Your task to perform on an android device: turn off location history Image 0: 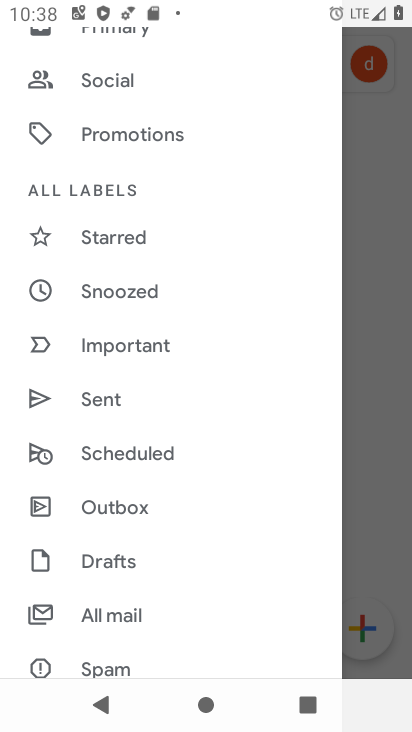
Step 0: press home button
Your task to perform on an android device: turn off location history Image 1: 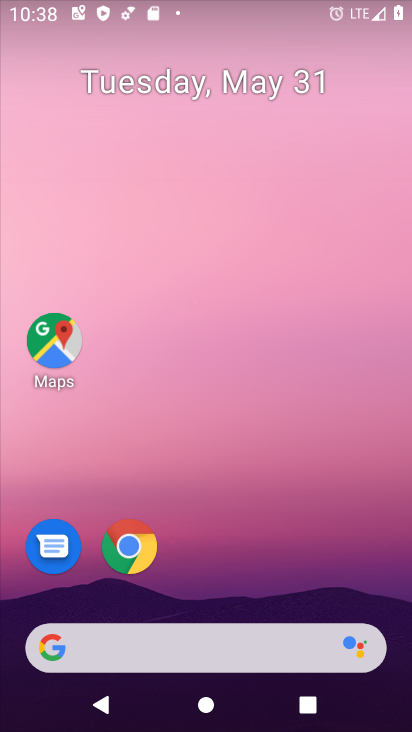
Step 1: drag from (237, 578) to (282, 98)
Your task to perform on an android device: turn off location history Image 2: 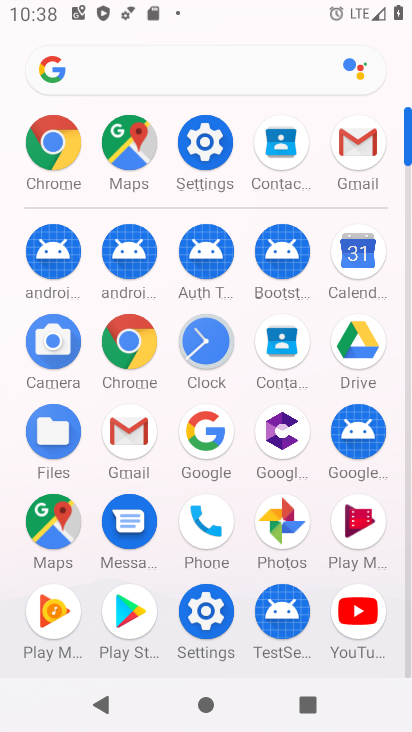
Step 2: click (232, 127)
Your task to perform on an android device: turn off location history Image 3: 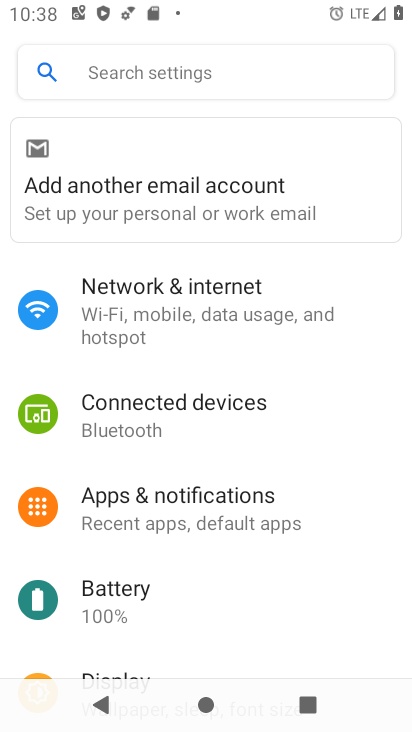
Step 3: drag from (287, 638) to (310, 192)
Your task to perform on an android device: turn off location history Image 4: 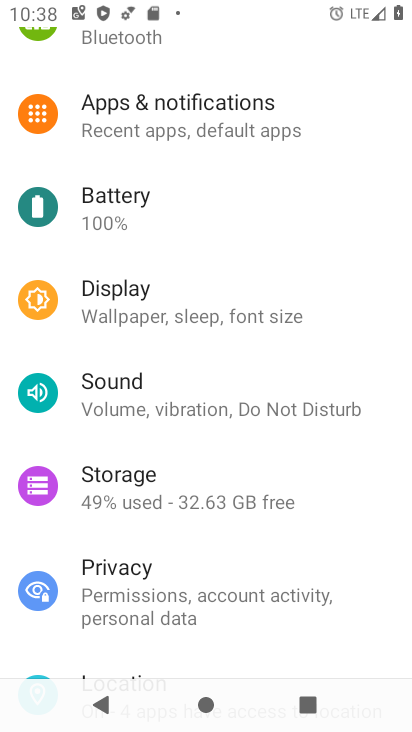
Step 4: drag from (255, 596) to (253, 159)
Your task to perform on an android device: turn off location history Image 5: 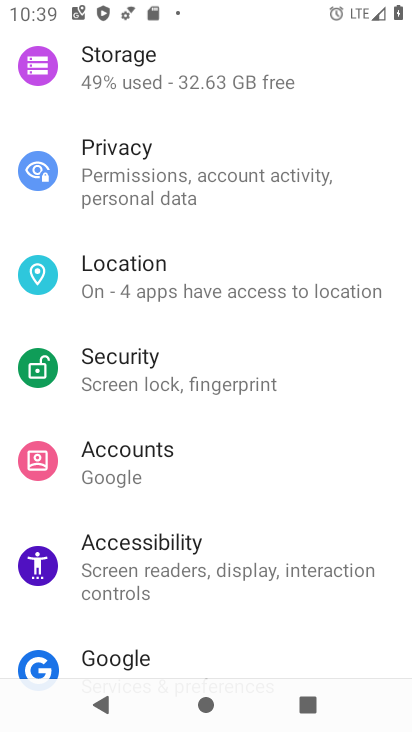
Step 5: click (211, 301)
Your task to perform on an android device: turn off location history Image 6: 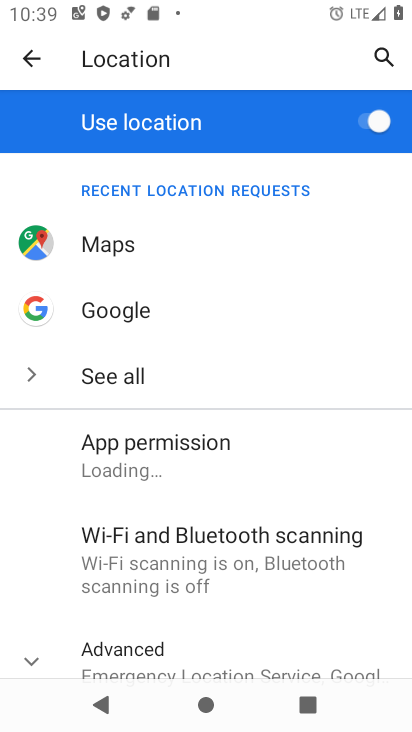
Step 6: drag from (235, 610) to (264, 173)
Your task to perform on an android device: turn off location history Image 7: 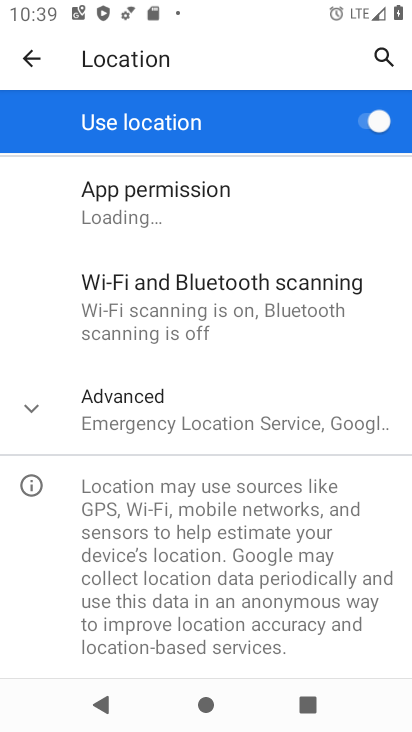
Step 7: click (203, 432)
Your task to perform on an android device: turn off location history Image 8: 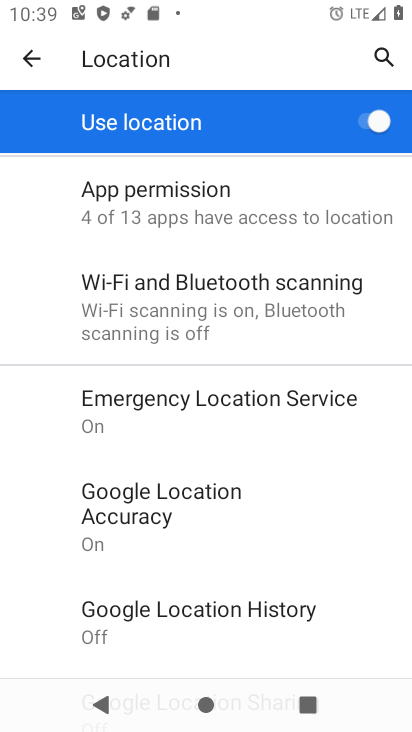
Step 8: task complete